Your task to perform on an android device: toggle sleep mode Image 0: 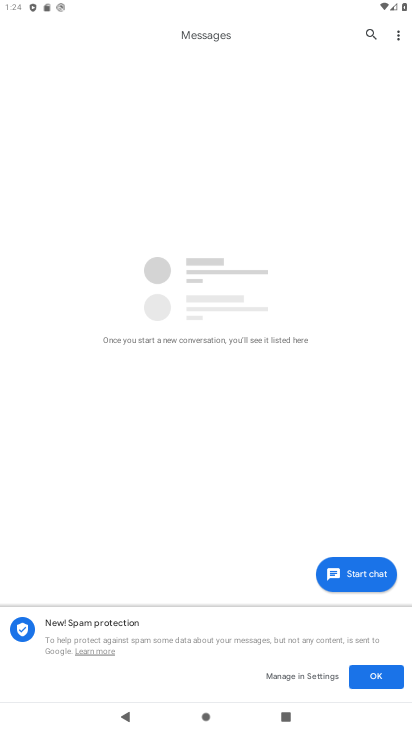
Step 0: press home button
Your task to perform on an android device: toggle sleep mode Image 1: 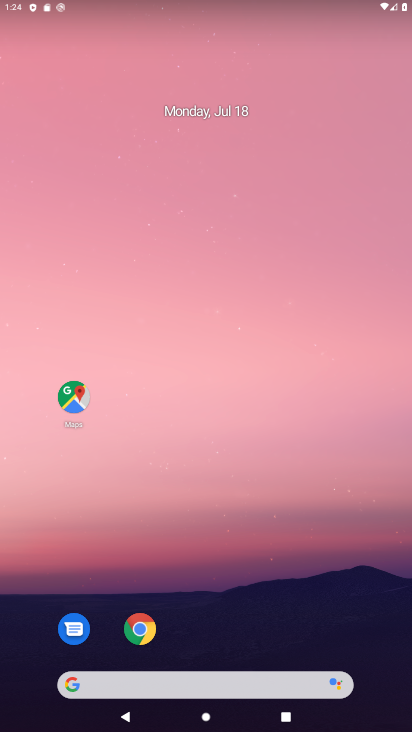
Step 1: drag from (209, 644) to (261, 7)
Your task to perform on an android device: toggle sleep mode Image 2: 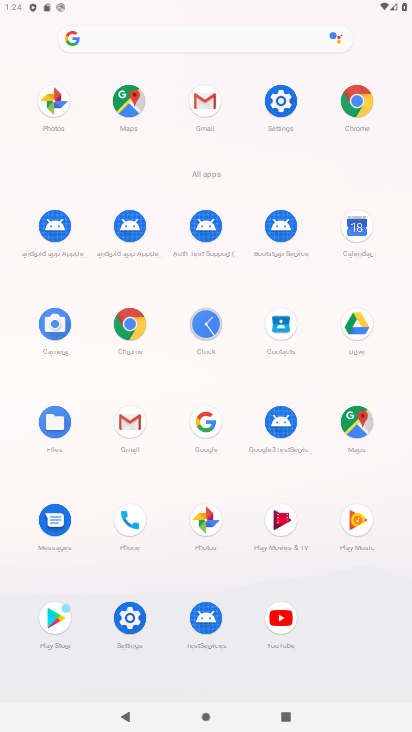
Step 2: click (280, 97)
Your task to perform on an android device: toggle sleep mode Image 3: 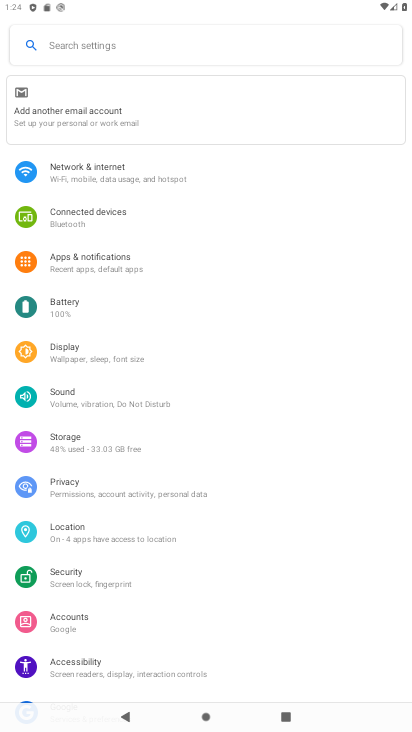
Step 3: click (99, 352)
Your task to perform on an android device: toggle sleep mode Image 4: 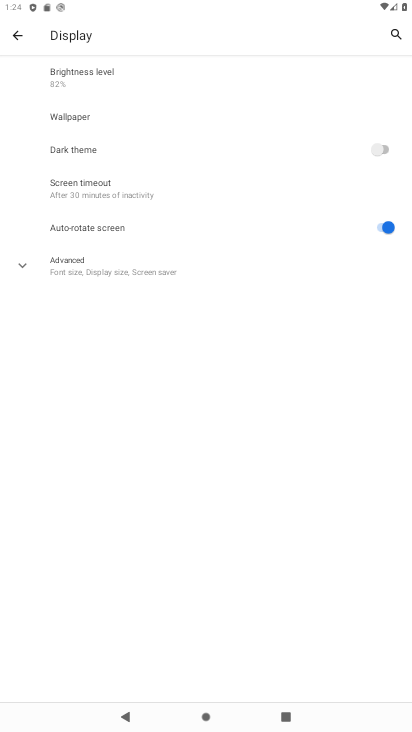
Step 4: click (27, 258)
Your task to perform on an android device: toggle sleep mode Image 5: 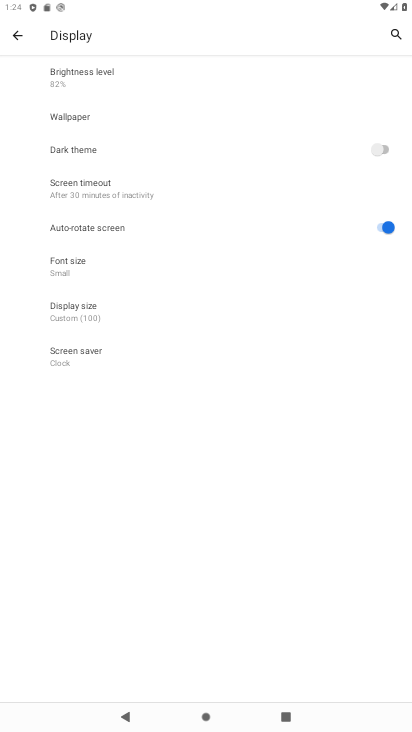
Step 5: task complete